Your task to perform on an android device: Open Youtube and go to the subscriptions tab Image 0: 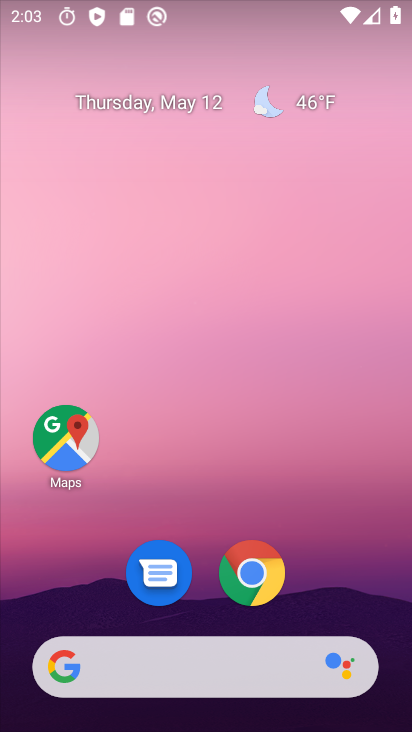
Step 0: drag from (209, 617) to (228, 85)
Your task to perform on an android device: Open Youtube and go to the subscriptions tab Image 1: 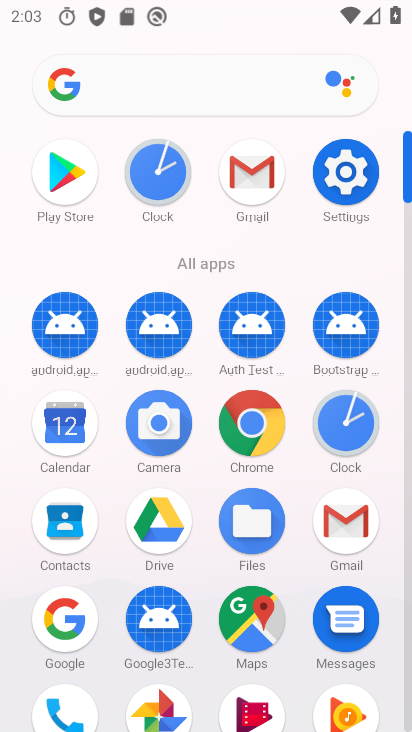
Step 1: drag from (205, 636) to (229, 256)
Your task to perform on an android device: Open Youtube and go to the subscriptions tab Image 2: 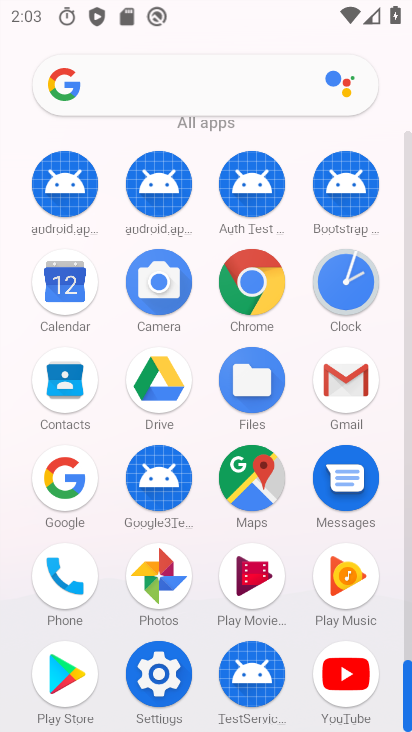
Step 2: click (338, 670)
Your task to perform on an android device: Open Youtube and go to the subscriptions tab Image 3: 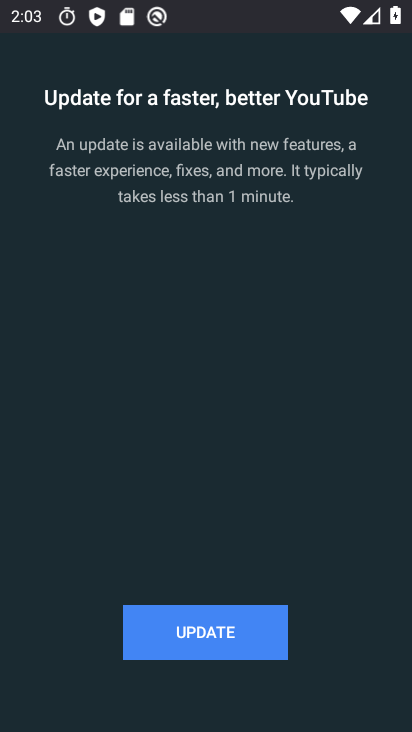
Step 3: click (241, 647)
Your task to perform on an android device: Open Youtube and go to the subscriptions tab Image 4: 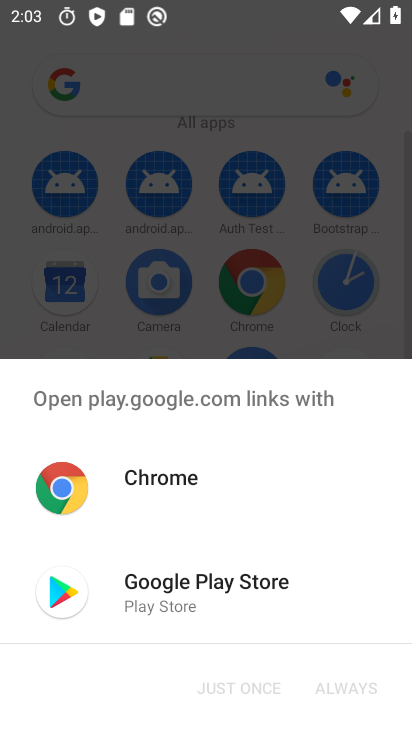
Step 4: click (192, 617)
Your task to perform on an android device: Open Youtube and go to the subscriptions tab Image 5: 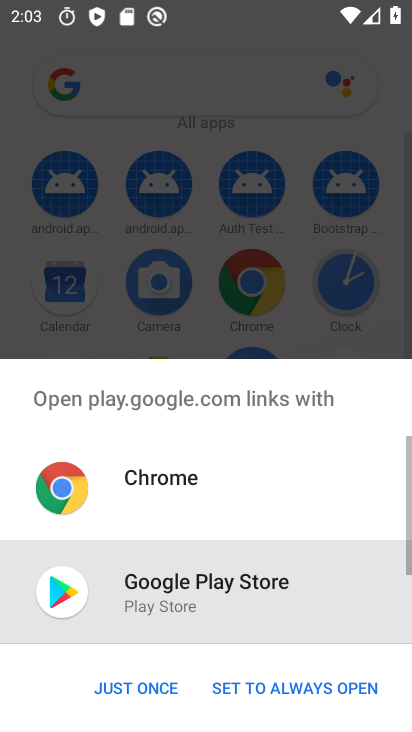
Step 5: click (168, 685)
Your task to perform on an android device: Open Youtube and go to the subscriptions tab Image 6: 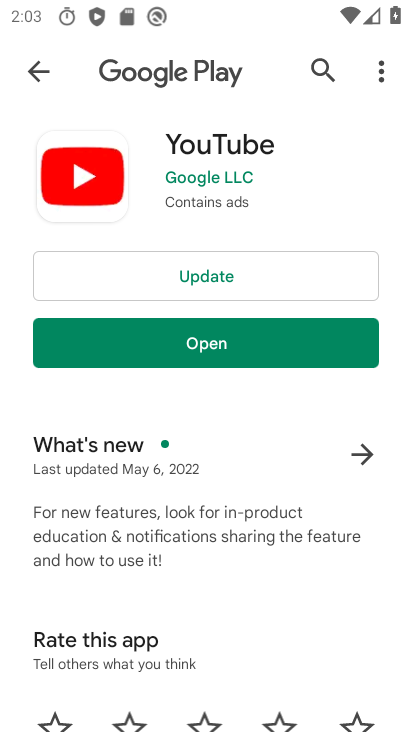
Step 6: click (209, 274)
Your task to perform on an android device: Open Youtube and go to the subscriptions tab Image 7: 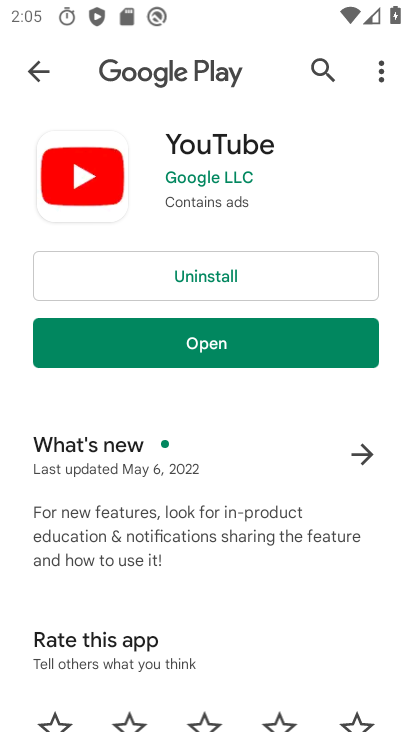
Step 7: click (209, 338)
Your task to perform on an android device: Open Youtube and go to the subscriptions tab Image 8: 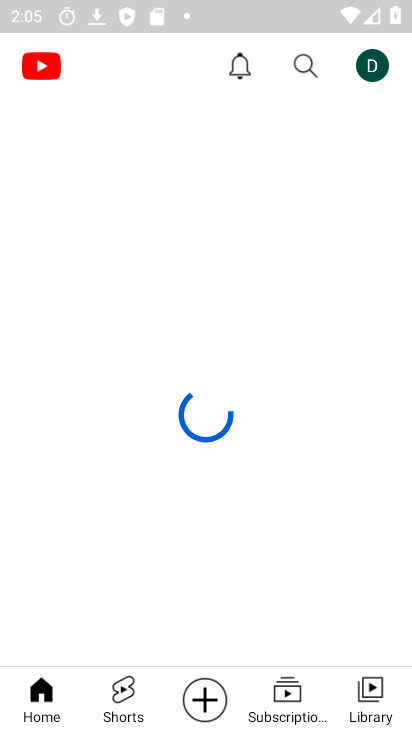
Step 8: click (259, 693)
Your task to perform on an android device: Open Youtube and go to the subscriptions tab Image 9: 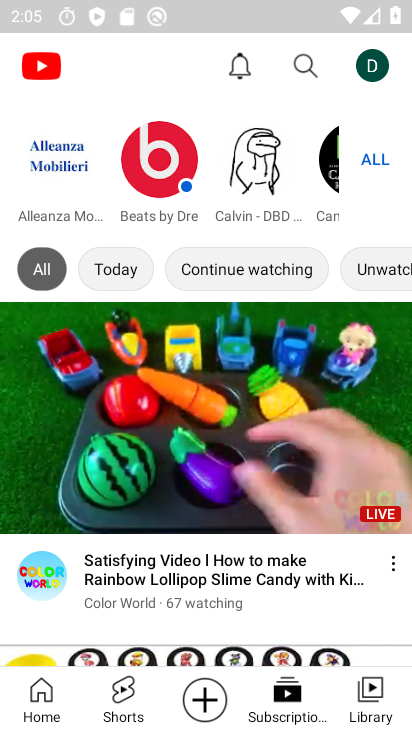
Step 9: task complete